Your task to perform on an android device: Do I have any events this weekend? Image 0: 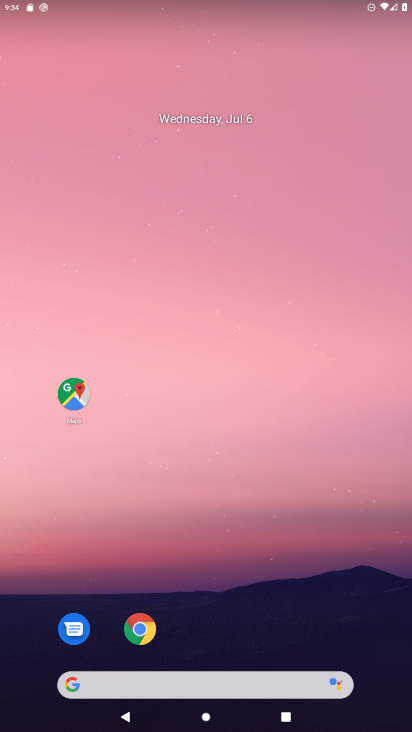
Step 0: drag from (230, 619) to (251, 134)
Your task to perform on an android device: Do I have any events this weekend? Image 1: 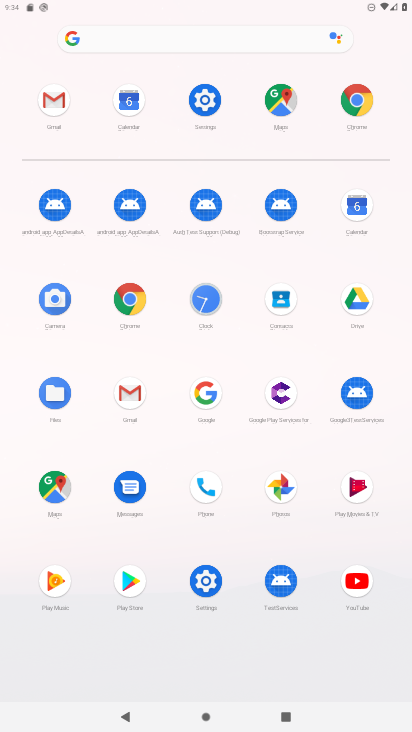
Step 1: click (346, 204)
Your task to perform on an android device: Do I have any events this weekend? Image 2: 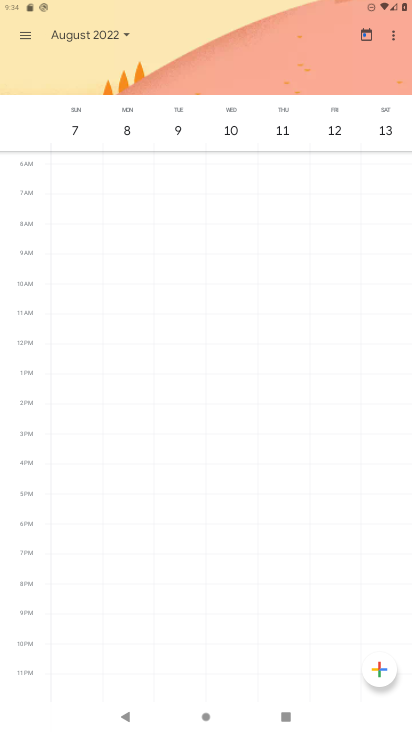
Step 2: click (127, 34)
Your task to perform on an android device: Do I have any events this weekend? Image 3: 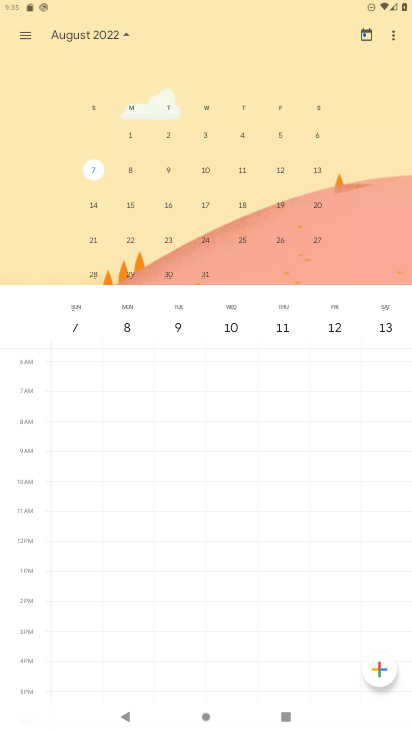
Step 3: drag from (82, 175) to (357, 201)
Your task to perform on an android device: Do I have any events this weekend? Image 4: 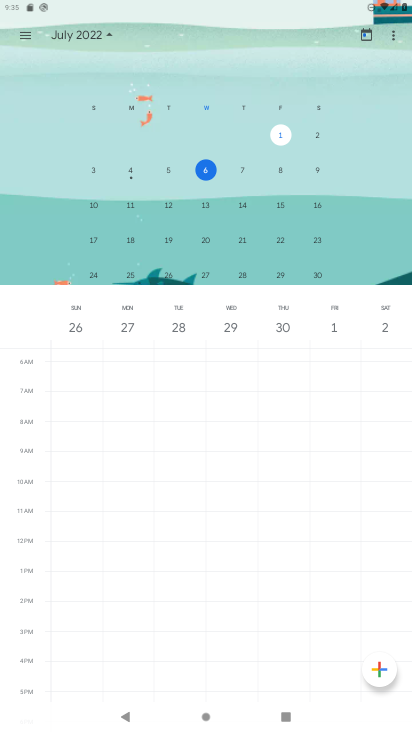
Step 4: click (309, 165)
Your task to perform on an android device: Do I have any events this weekend? Image 5: 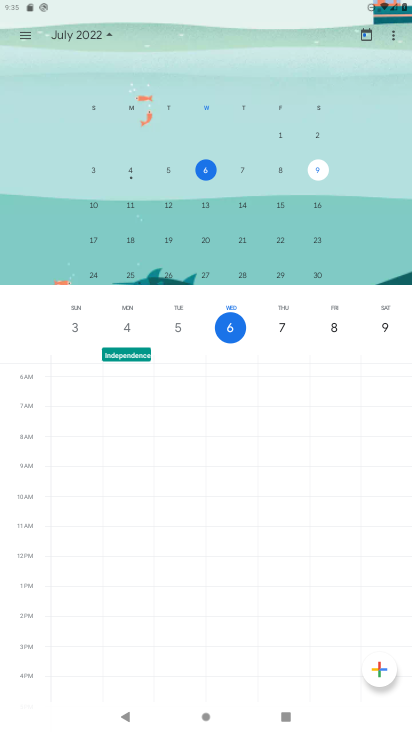
Step 5: task complete